Your task to perform on an android device: Show me popular games on the Play Store Image 0: 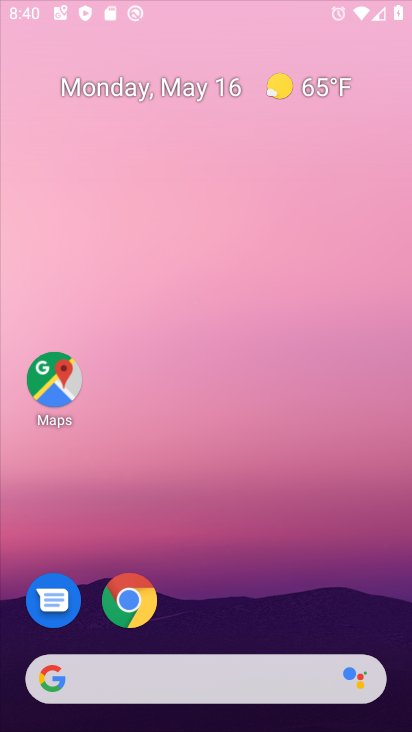
Step 0: click (287, 215)
Your task to perform on an android device: Show me popular games on the Play Store Image 1: 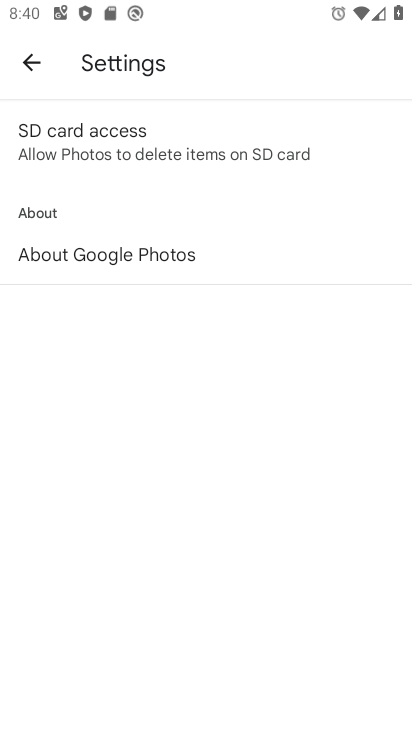
Step 1: press home button
Your task to perform on an android device: Show me popular games on the Play Store Image 2: 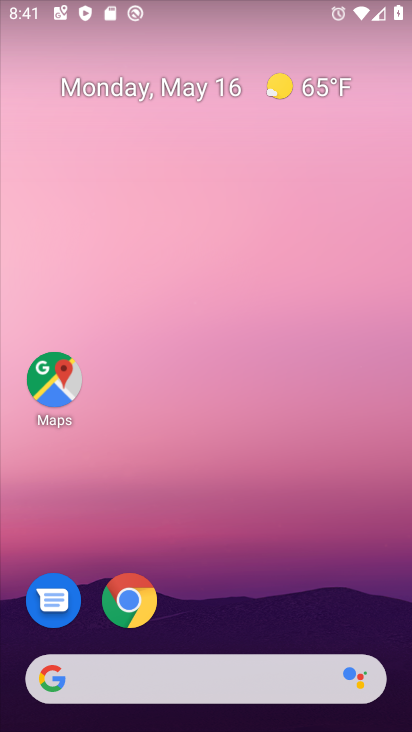
Step 2: drag from (222, 622) to (253, 8)
Your task to perform on an android device: Show me popular games on the Play Store Image 3: 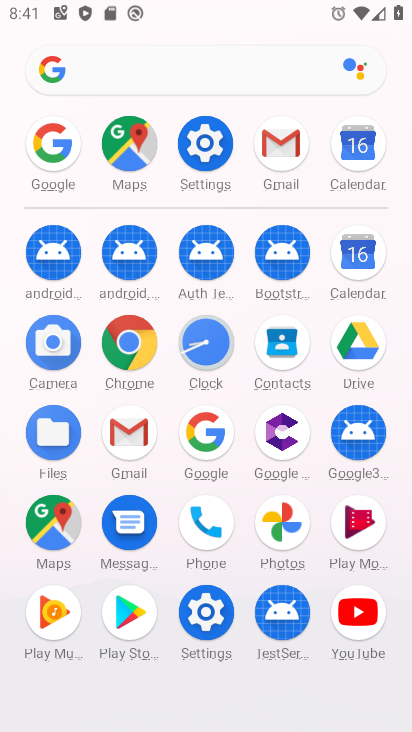
Step 3: click (128, 596)
Your task to perform on an android device: Show me popular games on the Play Store Image 4: 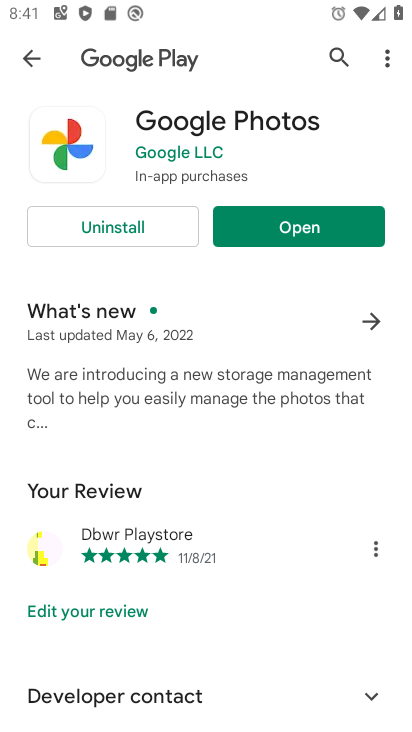
Step 4: click (25, 38)
Your task to perform on an android device: Show me popular games on the Play Store Image 5: 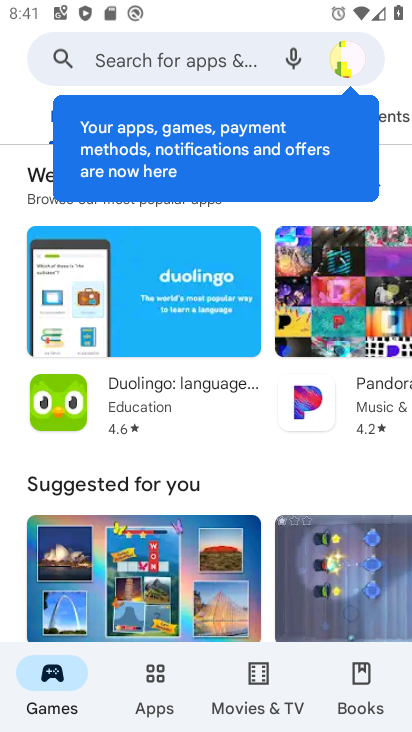
Step 5: drag from (233, 537) to (401, 26)
Your task to perform on an android device: Show me popular games on the Play Store Image 6: 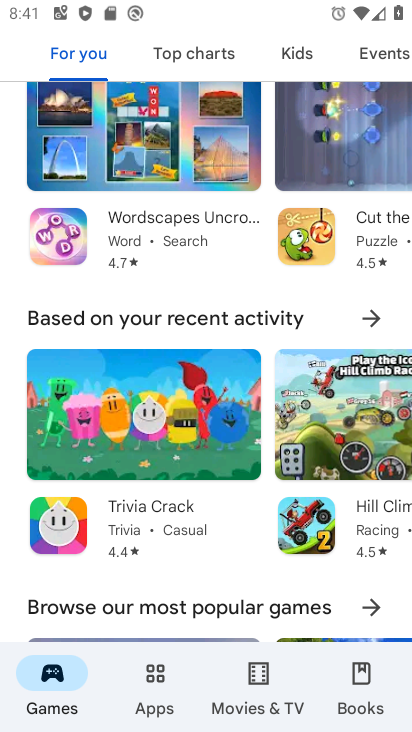
Step 6: drag from (273, 541) to (343, 145)
Your task to perform on an android device: Show me popular games on the Play Store Image 7: 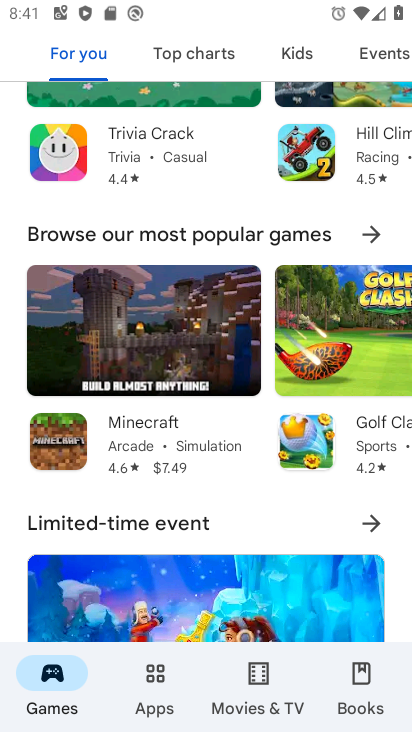
Step 7: click (373, 236)
Your task to perform on an android device: Show me popular games on the Play Store Image 8: 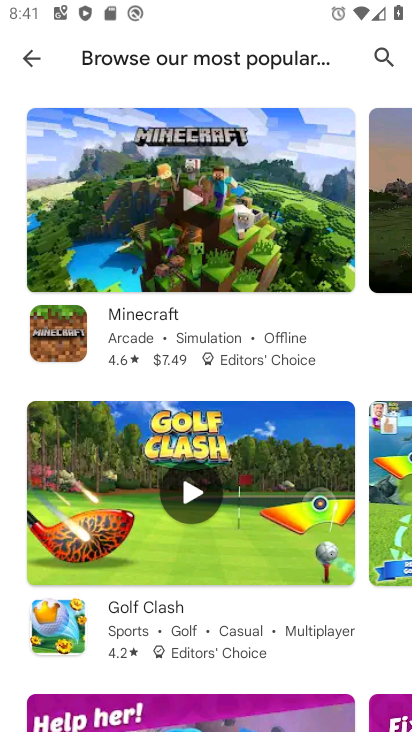
Step 8: task complete